Your task to perform on an android device: turn off wifi Image 0: 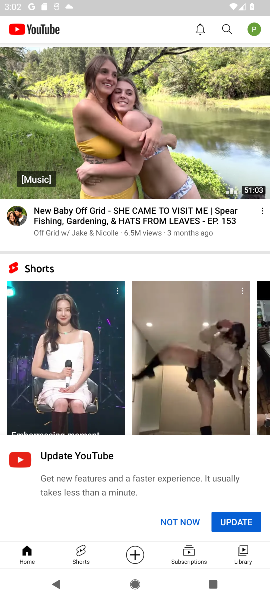
Step 0: press back button
Your task to perform on an android device: turn off wifi Image 1: 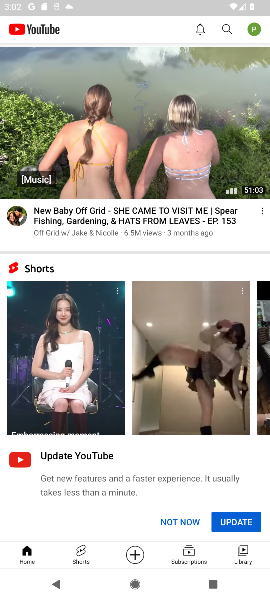
Step 1: press back button
Your task to perform on an android device: turn off wifi Image 2: 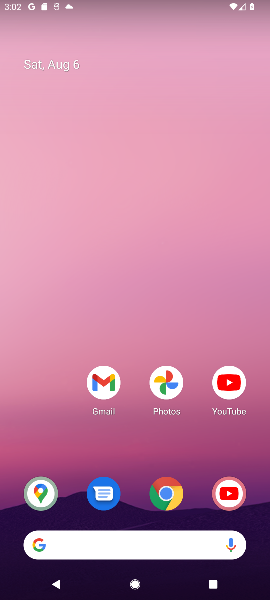
Step 2: press back button
Your task to perform on an android device: turn off wifi Image 3: 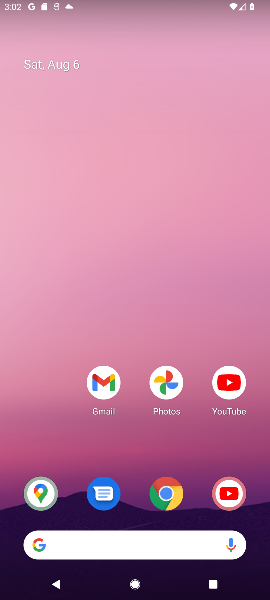
Step 3: drag from (146, 450) to (138, 27)
Your task to perform on an android device: turn off wifi Image 4: 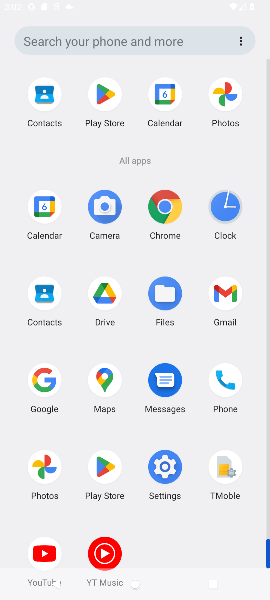
Step 4: drag from (115, 380) to (37, 3)
Your task to perform on an android device: turn off wifi Image 5: 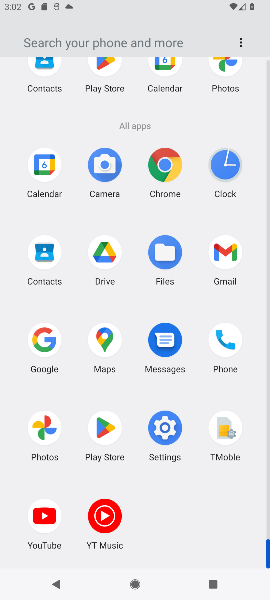
Step 5: drag from (80, 265) to (54, 50)
Your task to perform on an android device: turn off wifi Image 6: 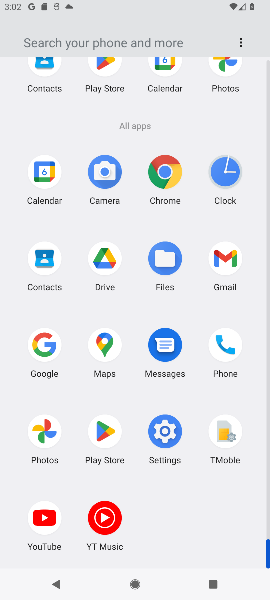
Step 6: click (164, 433)
Your task to perform on an android device: turn off wifi Image 7: 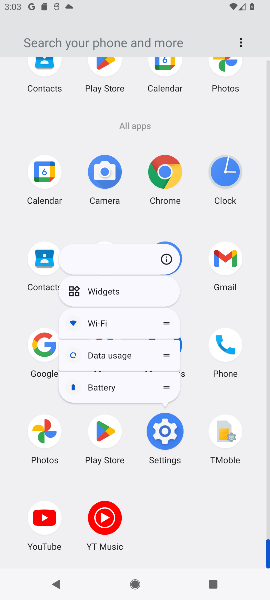
Step 7: click (164, 433)
Your task to perform on an android device: turn off wifi Image 8: 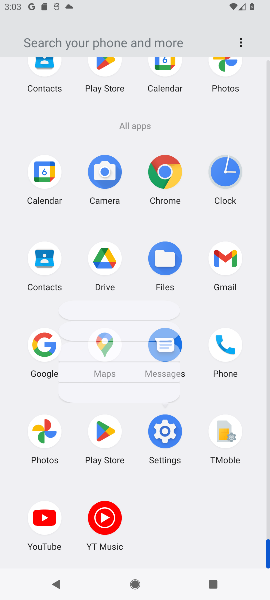
Step 8: click (164, 433)
Your task to perform on an android device: turn off wifi Image 9: 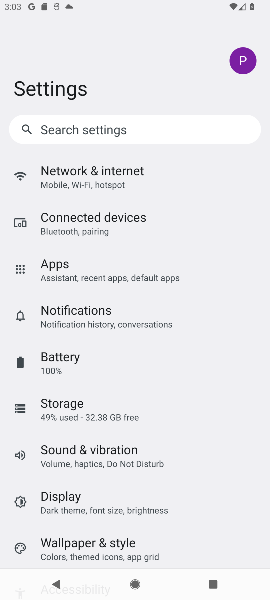
Step 9: click (75, 181)
Your task to perform on an android device: turn off wifi Image 10: 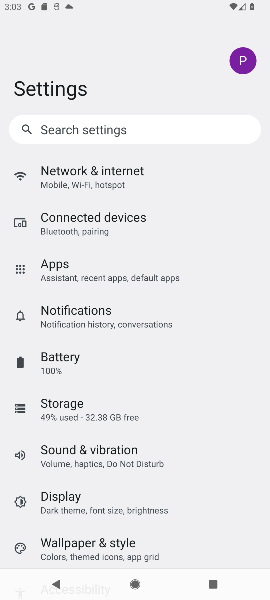
Step 10: click (75, 181)
Your task to perform on an android device: turn off wifi Image 11: 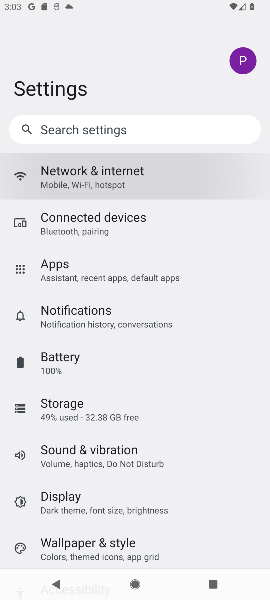
Step 11: click (75, 181)
Your task to perform on an android device: turn off wifi Image 12: 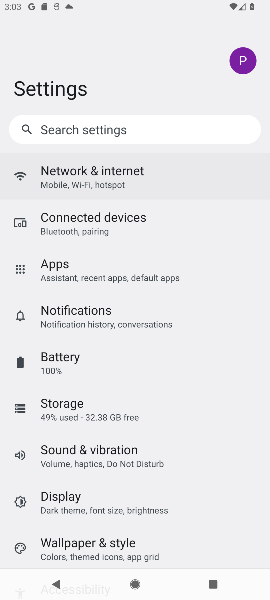
Step 12: click (81, 187)
Your task to perform on an android device: turn off wifi Image 13: 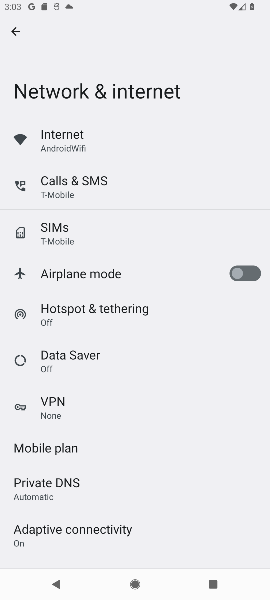
Step 13: click (66, 131)
Your task to perform on an android device: turn off wifi Image 14: 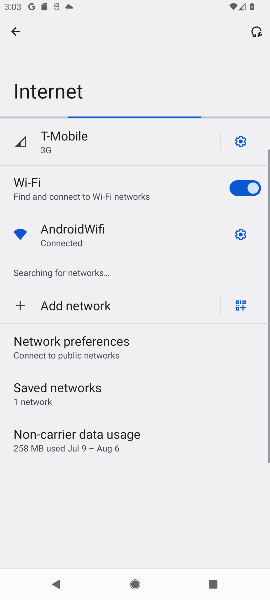
Step 14: click (19, 36)
Your task to perform on an android device: turn off wifi Image 15: 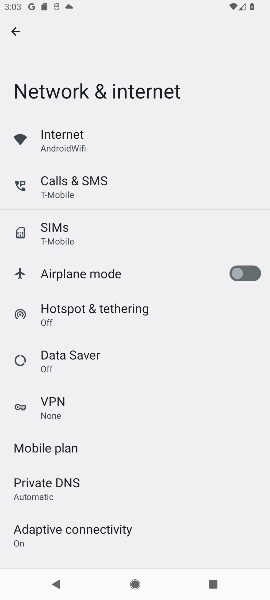
Step 15: click (9, 32)
Your task to perform on an android device: turn off wifi Image 16: 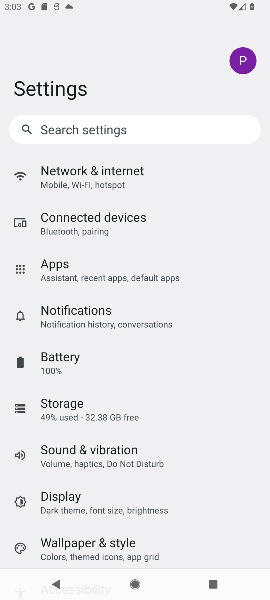
Step 16: click (94, 174)
Your task to perform on an android device: turn off wifi Image 17: 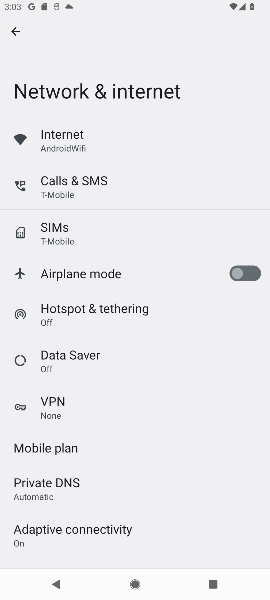
Step 17: click (9, 29)
Your task to perform on an android device: turn off wifi Image 18: 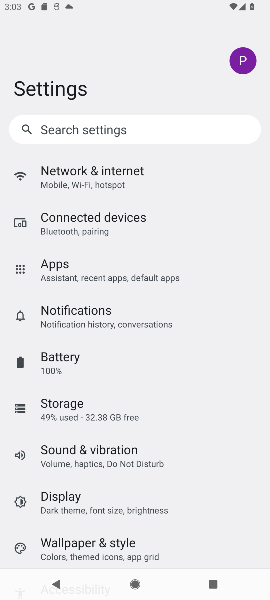
Step 18: click (97, 184)
Your task to perform on an android device: turn off wifi Image 19: 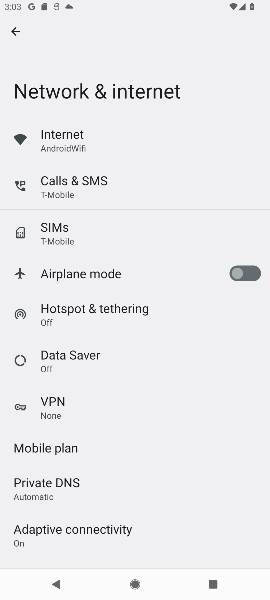
Step 19: click (63, 139)
Your task to perform on an android device: turn off wifi Image 20: 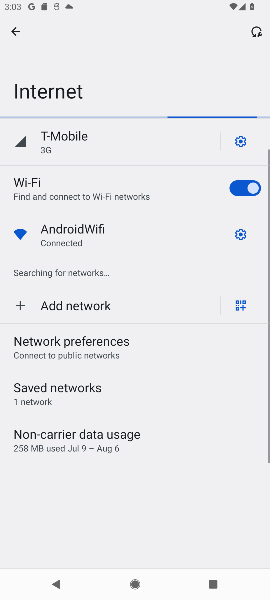
Step 20: click (252, 182)
Your task to perform on an android device: turn off wifi Image 21: 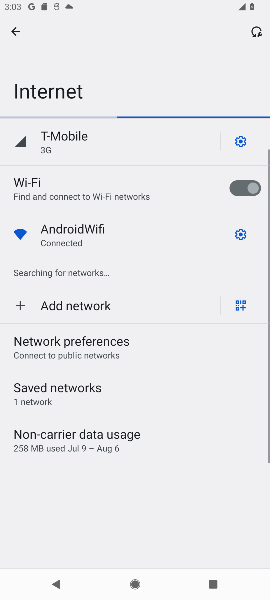
Step 21: task complete